Your task to perform on an android device: Open CNN.com Image 0: 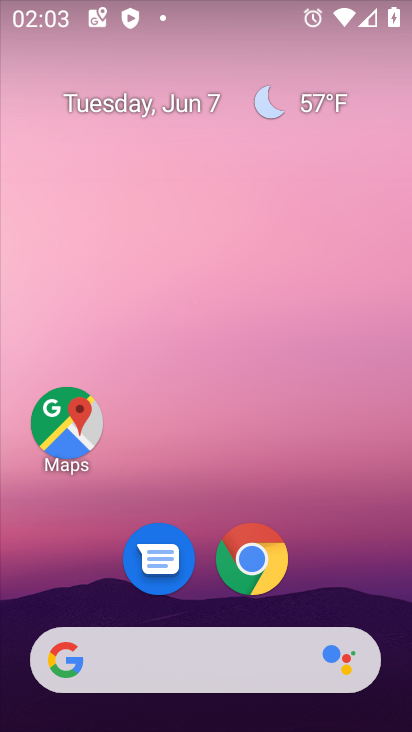
Step 0: click (256, 558)
Your task to perform on an android device: Open CNN.com Image 1: 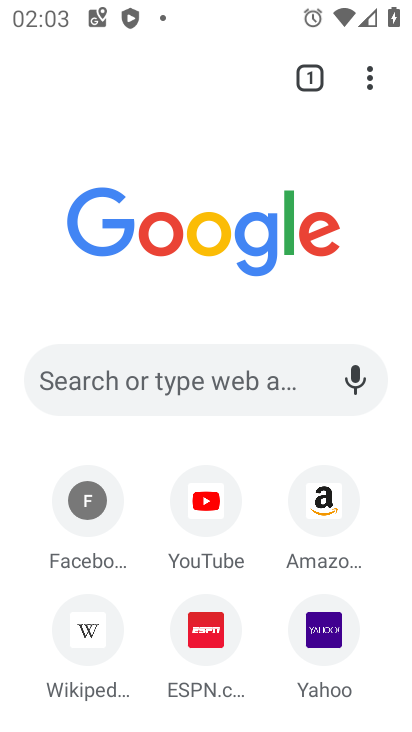
Step 1: click (196, 367)
Your task to perform on an android device: Open CNN.com Image 2: 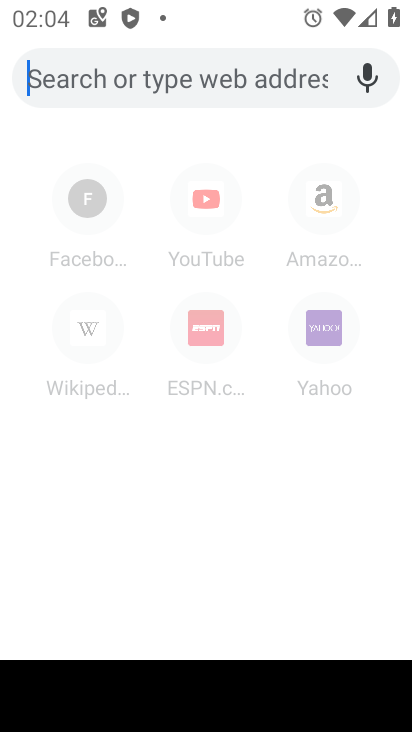
Step 2: type "CNN.com"
Your task to perform on an android device: Open CNN.com Image 3: 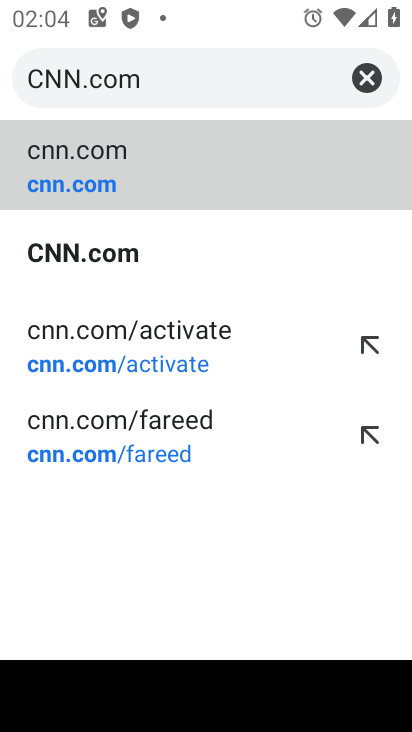
Step 3: click (128, 257)
Your task to perform on an android device: Open CNN.com Image 4: 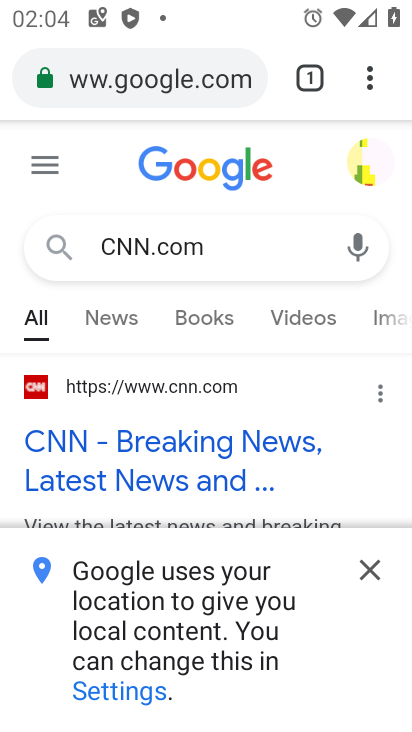
Step 4: click (370, 569)
Your task to perform on an android device: Open CNN.com Image 5: 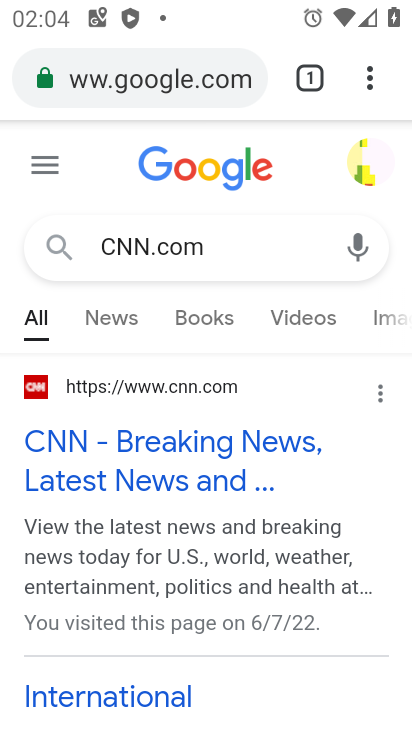
Step 5: click (200, 480)
Your task to perform on an android device: Open CNN.com Image 6: 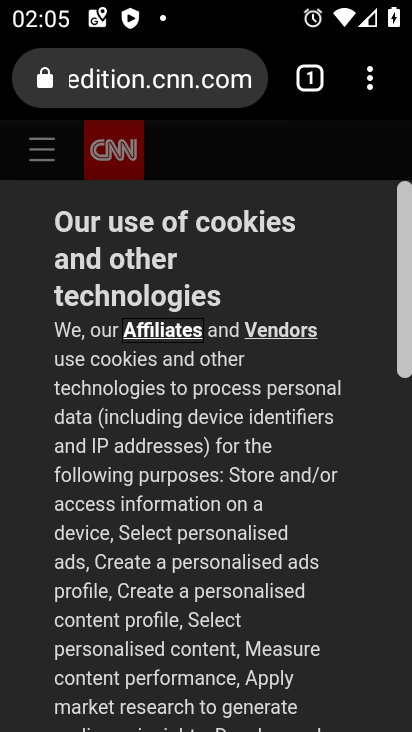
Step 6: task complete